Your task to perform on an android device: Go to calendar. Show me events next week Image 0: 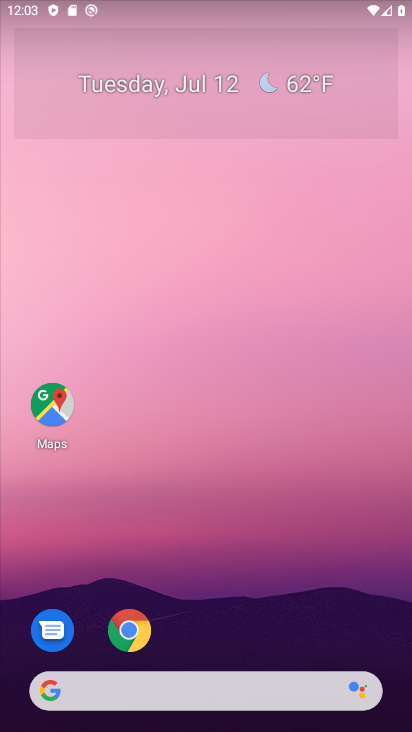
Step 0: press home button
Your task to perform on an android device: Go to calendar. Show me events next week Image 1: 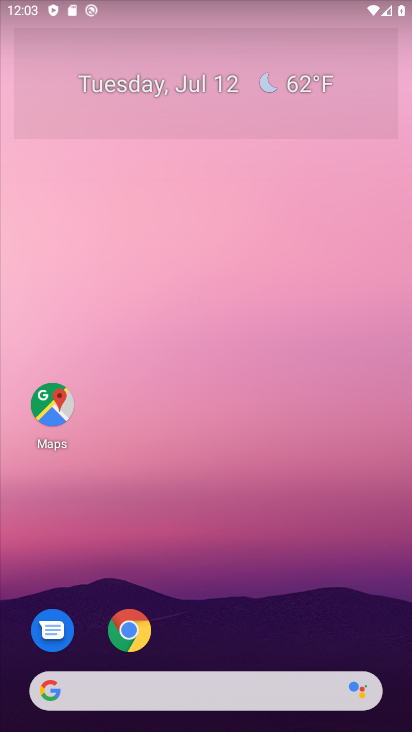
Step 1: drag from (227, 632) to (238, 131)
Your task to perform on an android device: Go to calendar. Show me events next week Image 2: 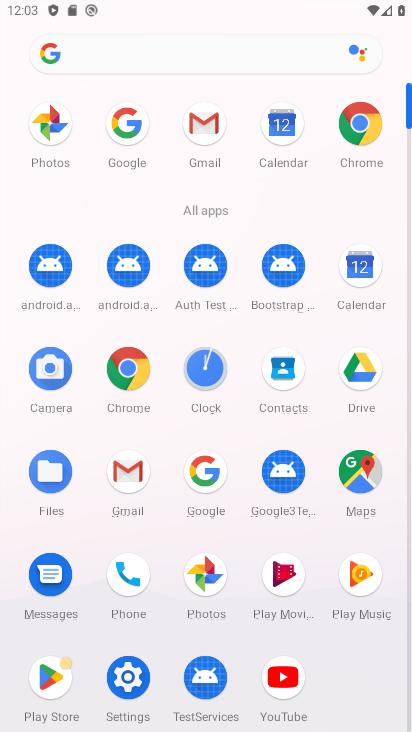
Step 2: click (360, 267)
Your task to perform on an android device: Go to calendar. Show me events next week Image 3: 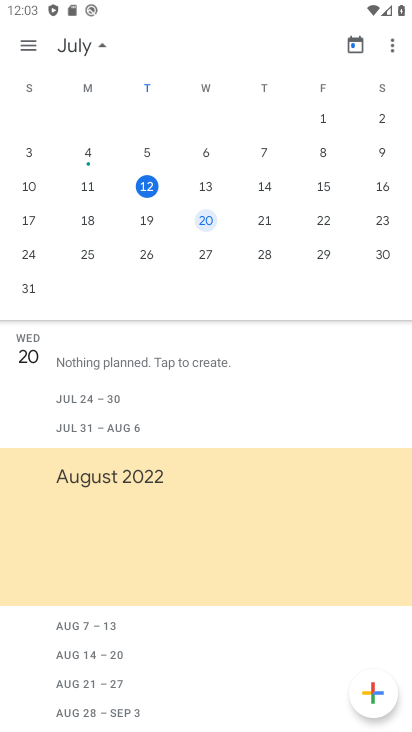
Step 3: click (261, 220)
Your task to perform on an android device: Go to calendar. Show me events next week Image 4: 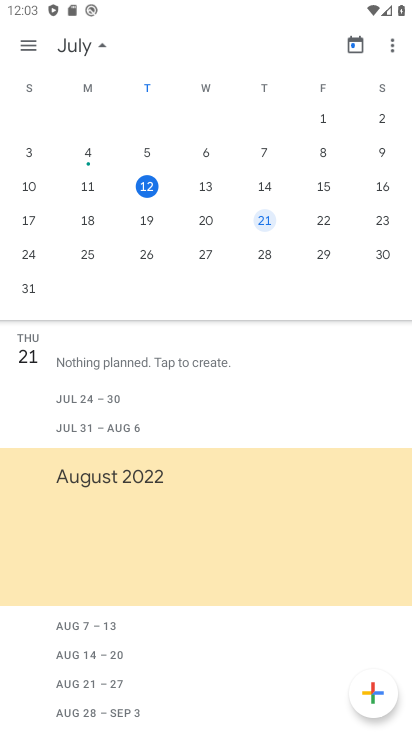
Step 4: task complete